Your task to perform on an android device: Go to battery settings Image 0: 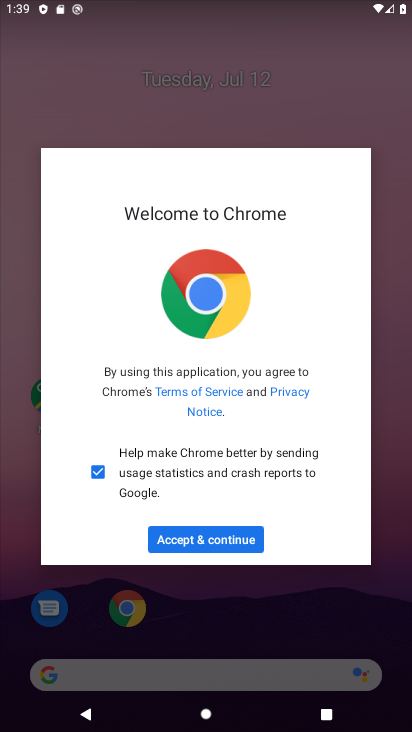
Step 0: press home button
Your task to perform on an android device: Go to battery settings Image 1: 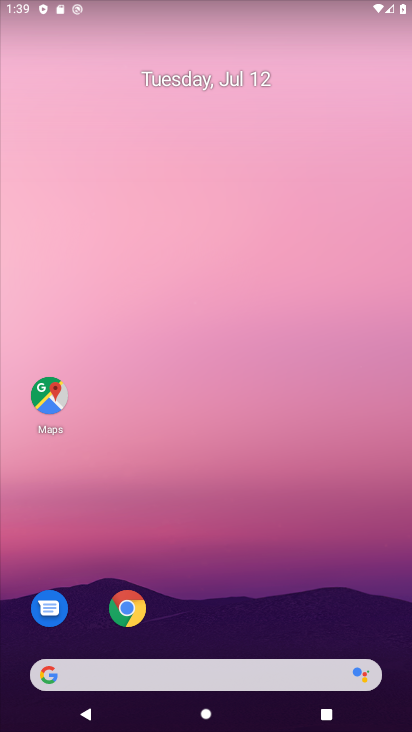
Step 1: drag from (290, 527) to (267, 87)
Your task to perform on an android device: Go to battery settings Image 2: 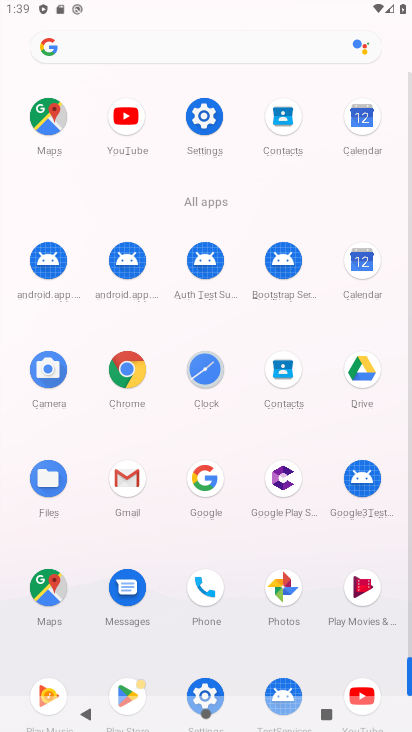
Step 2: click (204, 685)
Your task to perform on an android device: Go to battery settings Image 3: 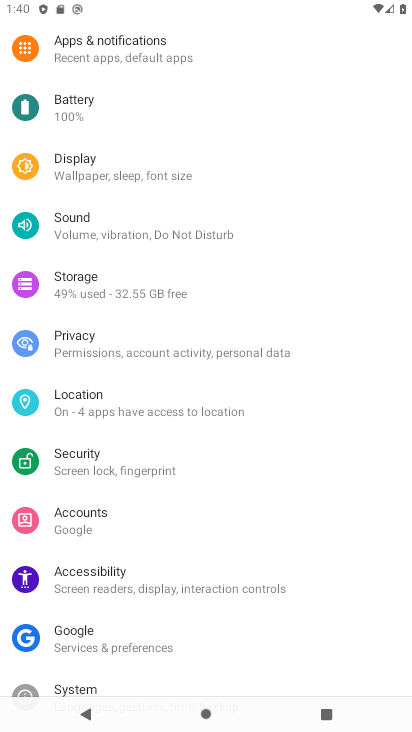
Step 3: click (74, 103)
Your task to perform on an android device: Go to battery settings Image 4: 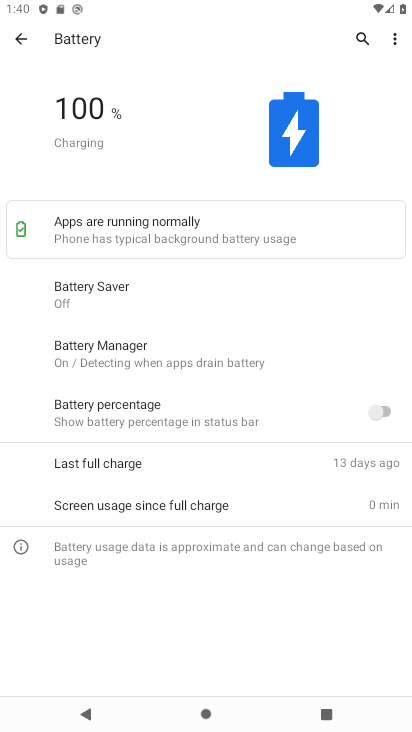
Step 4: task complete